Your task to perform on an android device: turn off priority inbox in the gmail app Image 0: 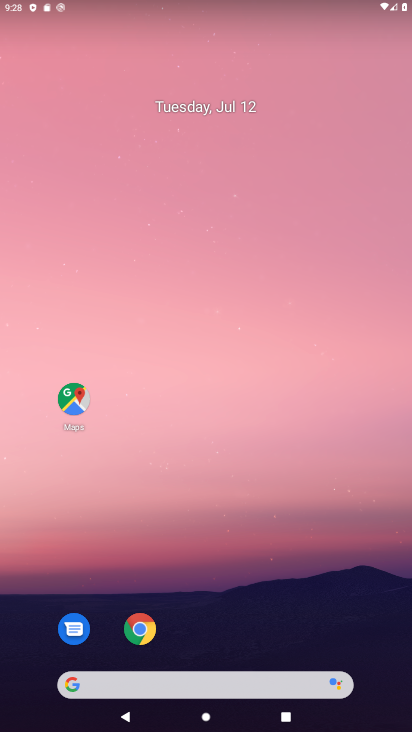
Step 0: drag from (229, 620) to (307, 4)
Your task to perform on an android device: turn off priority inbox in the gmail app Image 1: 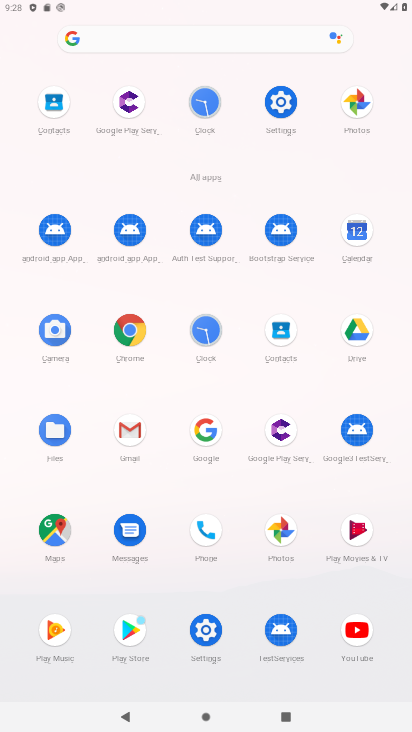
Step 1: click (134, 429)
Your task to perform on an android device: turn off priority inbox in the gmail app Image 2: 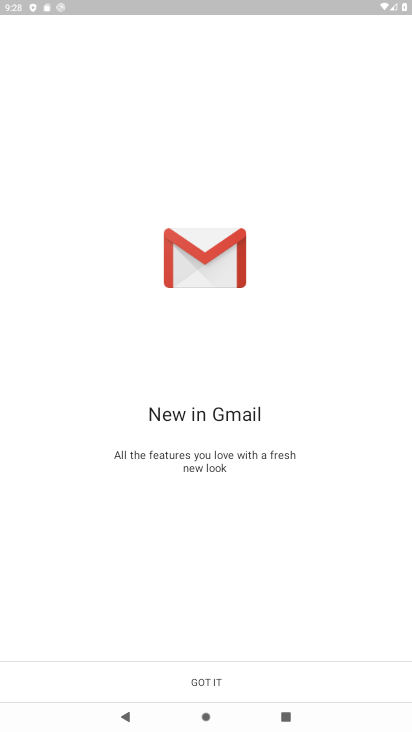
Step 2: click (209, 672)
Your task to perform on an android device: turn off priority inbox in the gmail app Image 3: 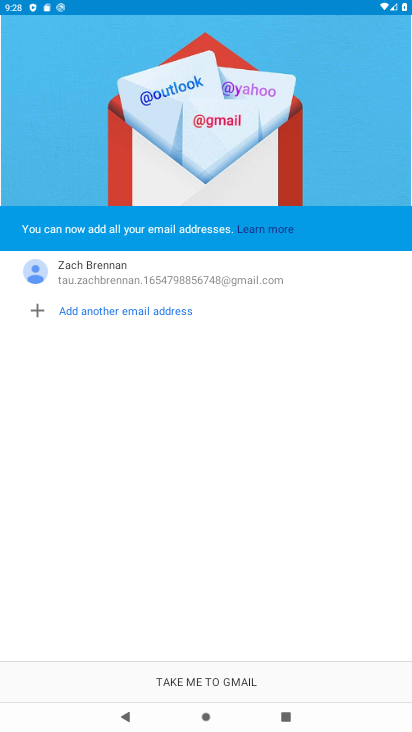
Step 3: click (223, 671)
Your task to perform on an android device: turn off priority inbox in the gmail app Image 4: 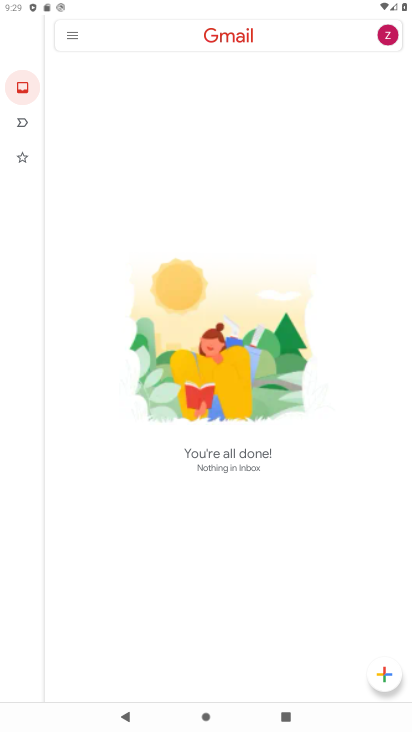
Step 4: click (66, 36)
Your task to perform on an android device: turn off priority inbox in the gmail app Image 5: 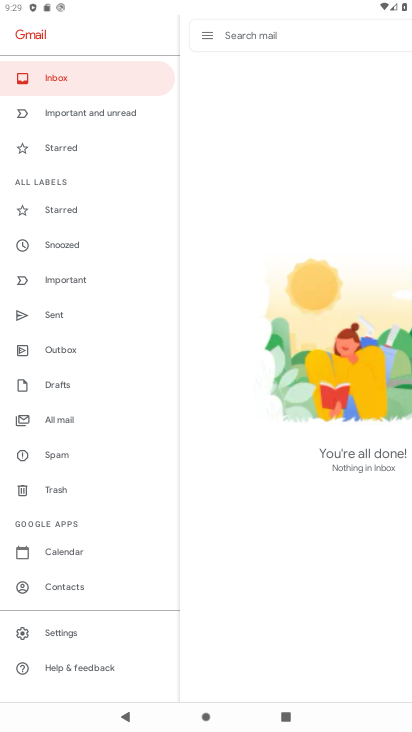
Step 5: click (82, 626)
Your task to perform on an android device: turn off priority inbox in the gmail app Image 6: 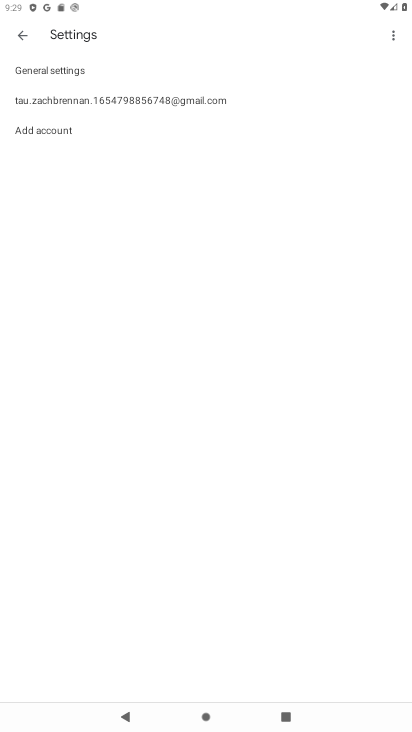
Step 6: click (82, 626)
Your task to perform on an android device: turn off priority inbox in the gmail app Image 7: 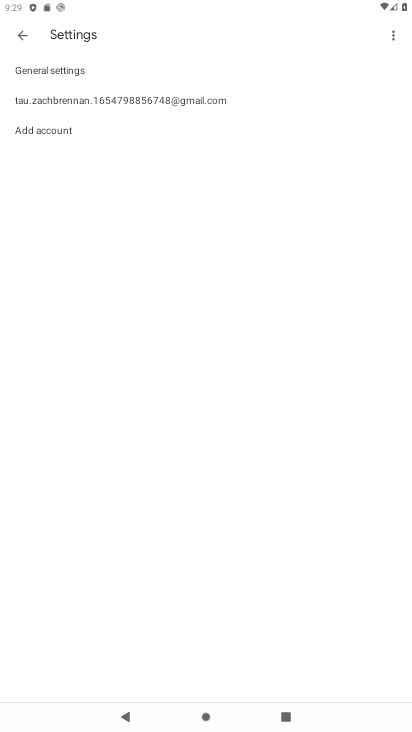
Step 7: click (192, 89)
Your task to perform on an android device: turn off priority inbox in the gmail app Image 8: 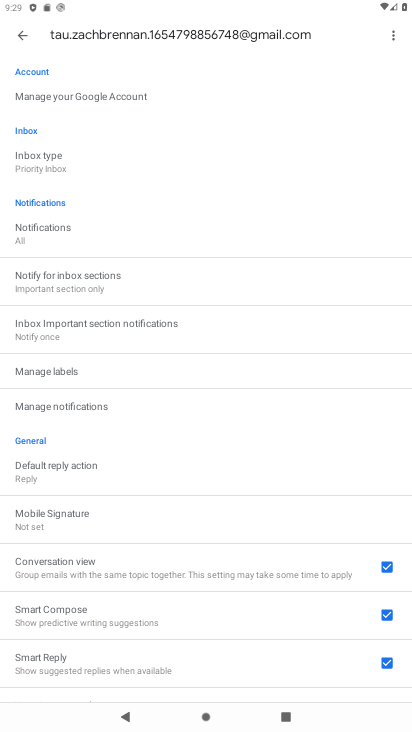
Step 8: click (74, 165)
Your task to perform on an android device: turn off priority inbox in the gmail app Image 9: 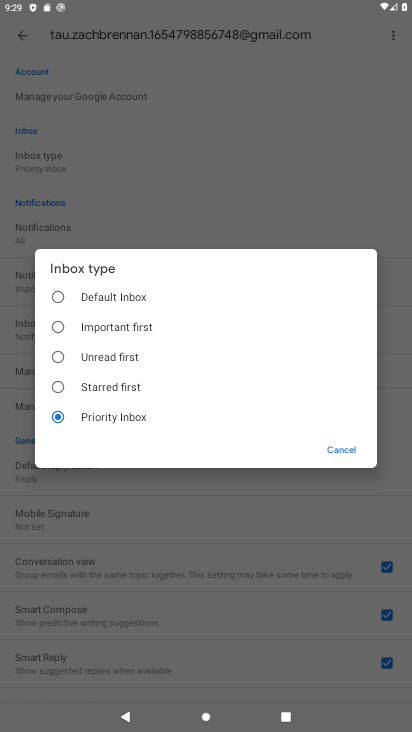
Step 9: click (99, 292)
Your task to perform on an android device: turn off priority inbox in the gmail app Image 10: 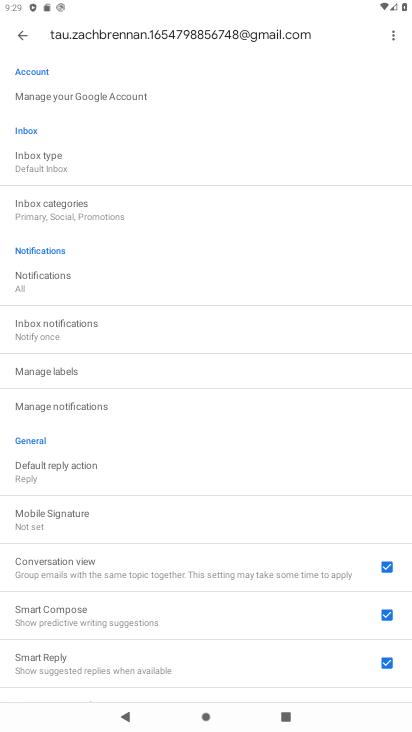
Step 10: task complete